Your task to perform on an android device: check google app version Image 0: 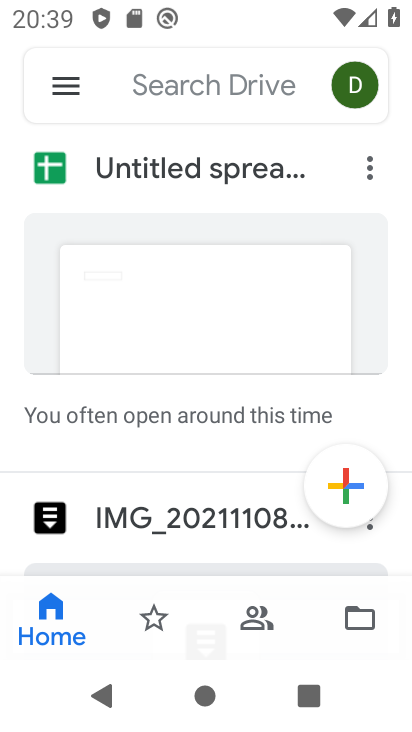
Step 0: press home button
Your task to perform on an android device: check google app version Image 1: 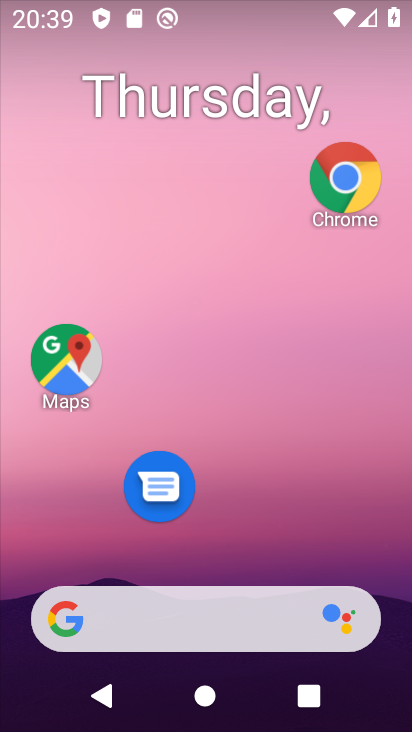
Step 1: drag from (218, 562) to (115, 114)
Your task to perform on an android device: check google app version Image 2: 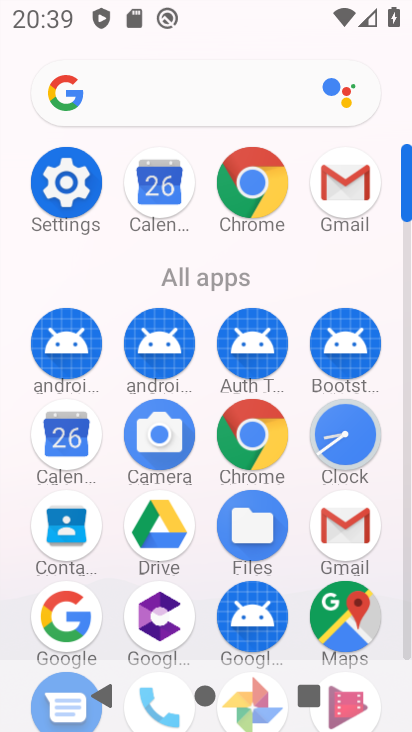
Step 2: click (75, 594)
Your task to perform on an android device: check google app version Image 3: 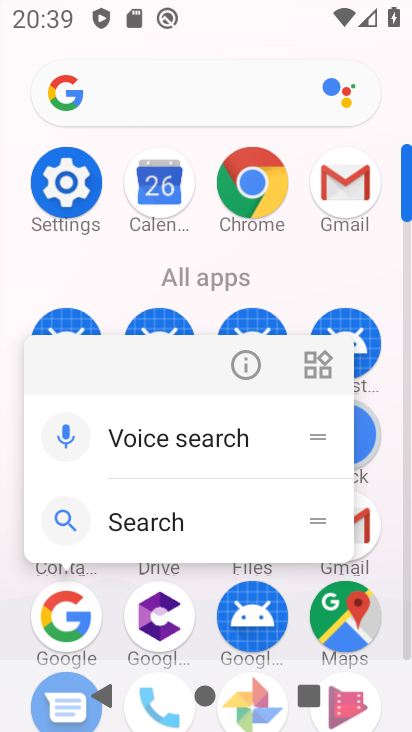
Step 3: click (235, 369)
Your task to perform on an android device: check google app version Image 4: 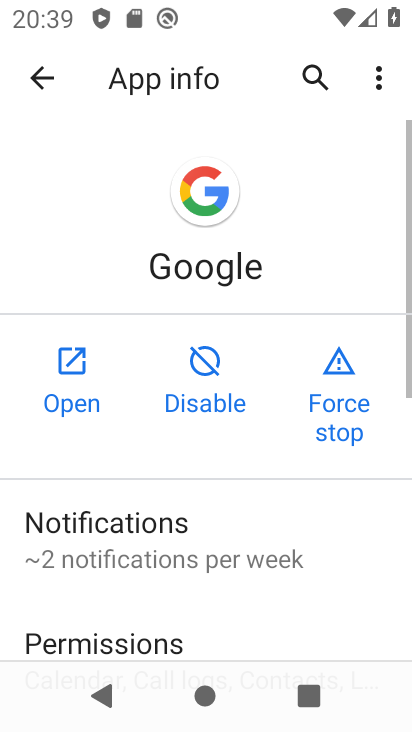
Step 4: drag from (360, 452) to (274, 7)
Your task to perform on an android device: check google app version Image 5: 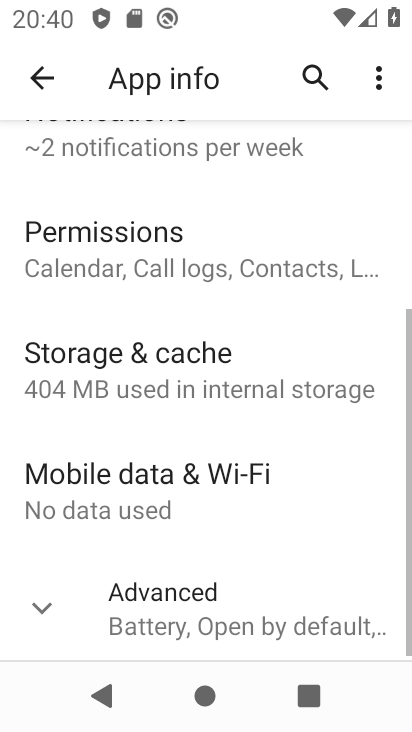
Step 5: click (240, 600)
Your task to perform on an android device: check google app version Image 6: 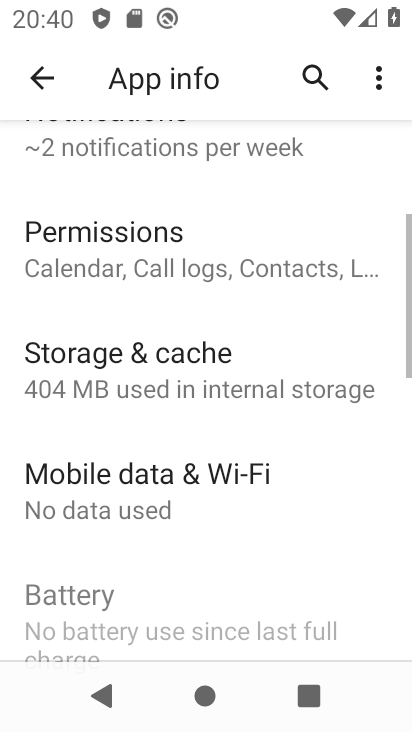
Step 6: task complete